Your task to perform on an android device: turn off translation in the chrome app Image 0: 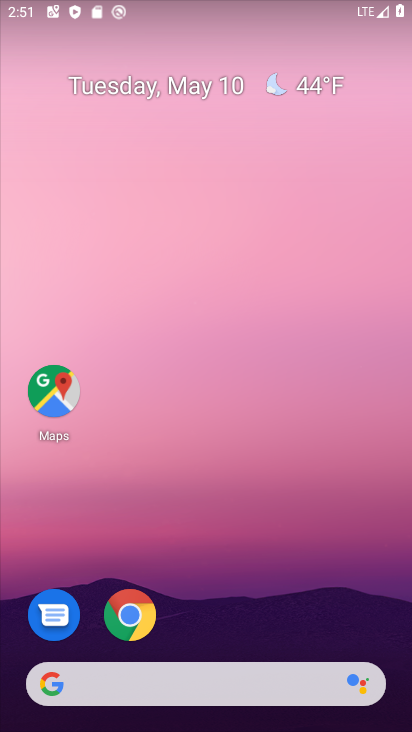
Step 0: click (279, 622)
Your task to perform on an android device: turn off translation in the chrome app Image 1: 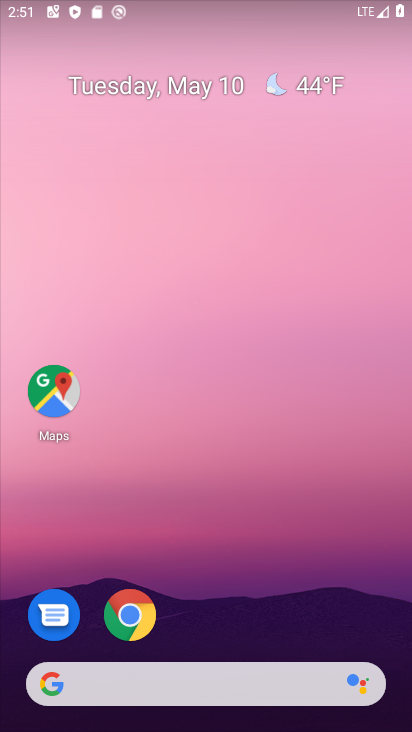
Step 1: click (140, 620)
Your task to perform on an android device: turn off translation in the chrome app Image 2: 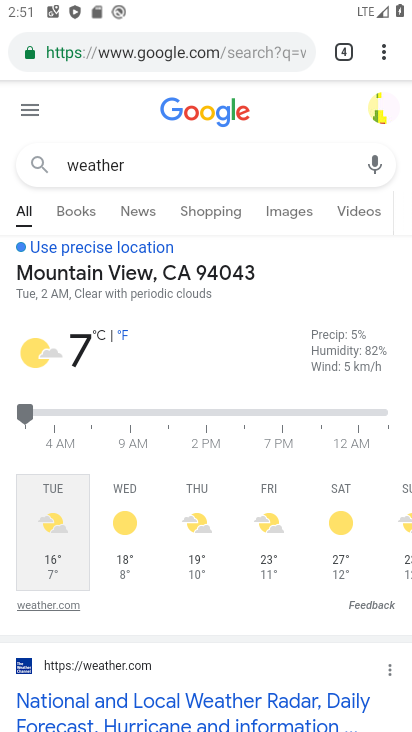
Step 2: drag from (377, 54) to (261, 562)
Your task to perform on an android device: turn off translation in the chrome app Image 3: 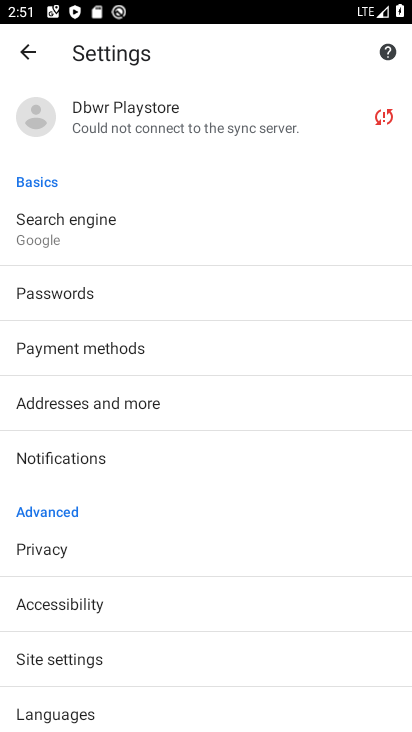
Step 3: drag from (170, 666) to (164, 462)
Your task to perform on an android device: turn off translation in the chrome app Image 4: 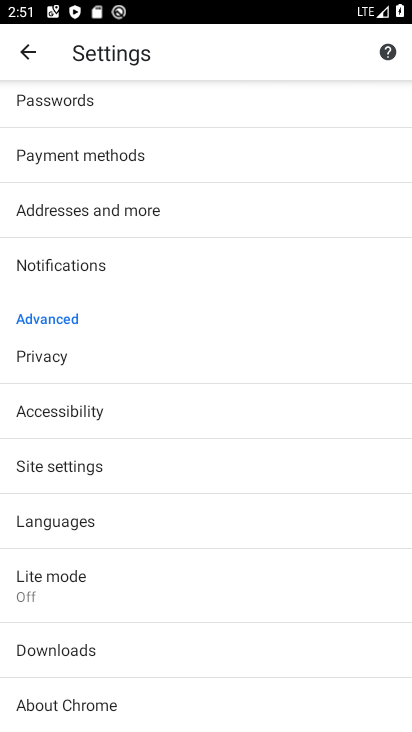
Step 4: click (123, 520)
Your task to perform on an android device: turn off translation in the chrome app Image 5: 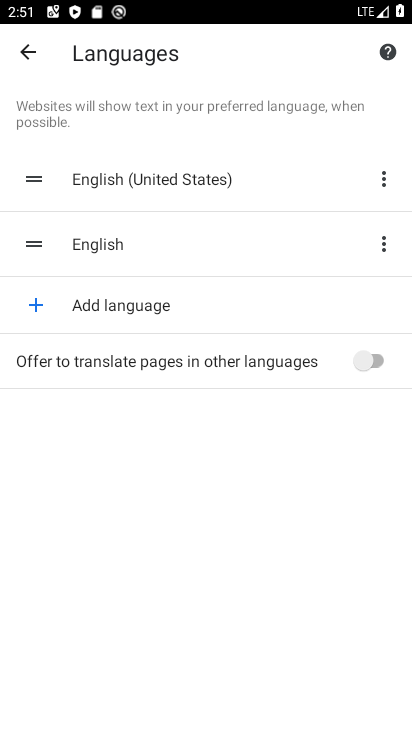
Step 5: task complete